Your task to perform on an android device: Go to Wikipedia Image 0: 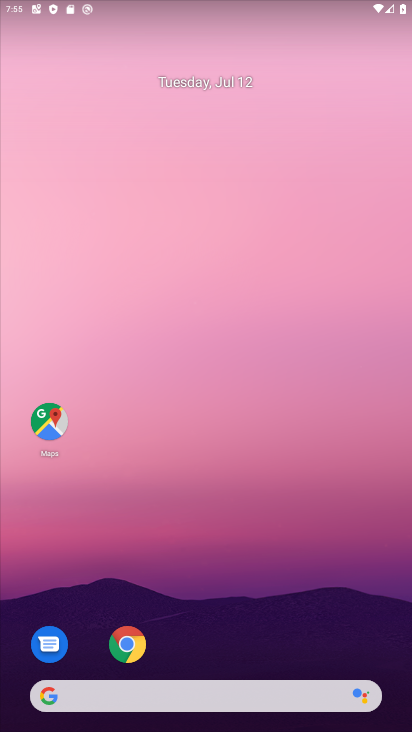
Step 0: drag from (224, 643) to (310, 121)
Your task to perform on an android device: Go to Wikipedia Image 1: 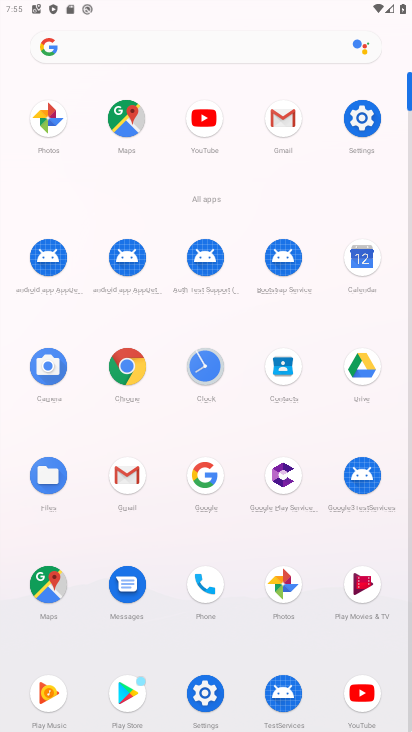
Step 1: click (128, 362)
Your task to perform on an android device: Go to Wikipedia Image 2: 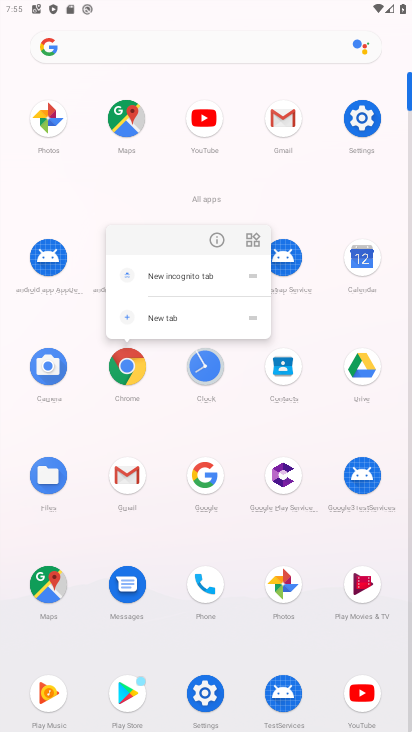
Step 2: click (213, 236)
Your task to perform on an android device: Go to Wikipedia Image 3: 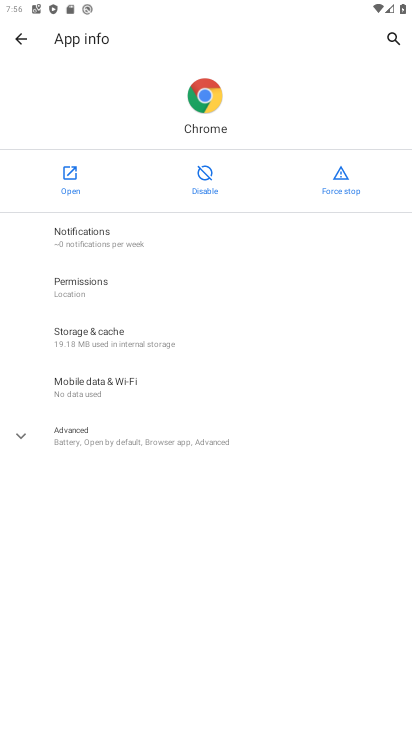
Step 3: click (73, 188)
Your task to perform on an android device: Go to Wikipedia Image 4: 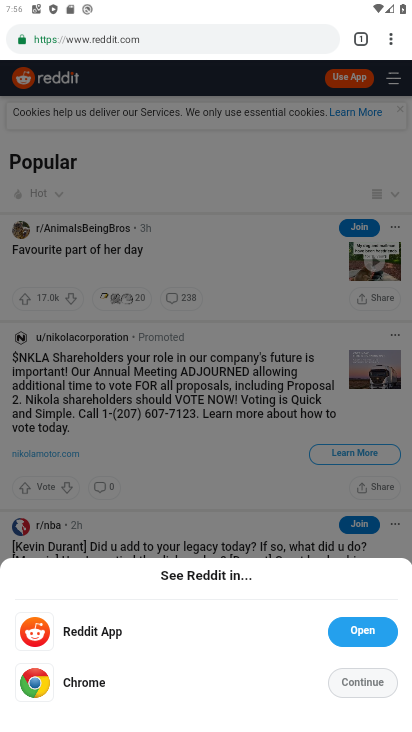
Step 4: click (119, 33)
Your task to perform on an android device: Go to Wikipedia Image 5: 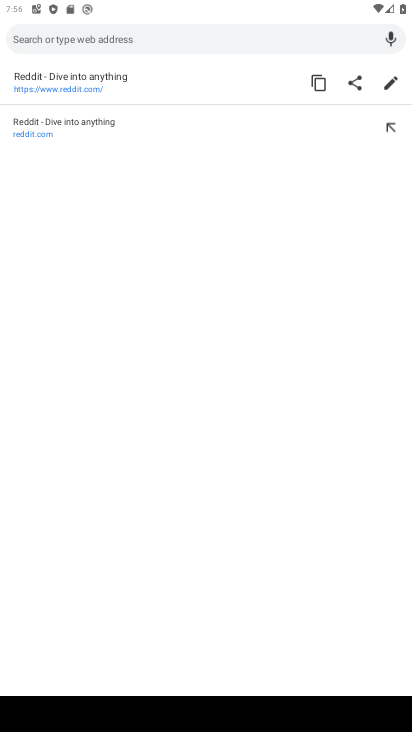
Step 5: type "wikipedia"
Your task to perform on an android device: Go to Wikipedia Image 6: 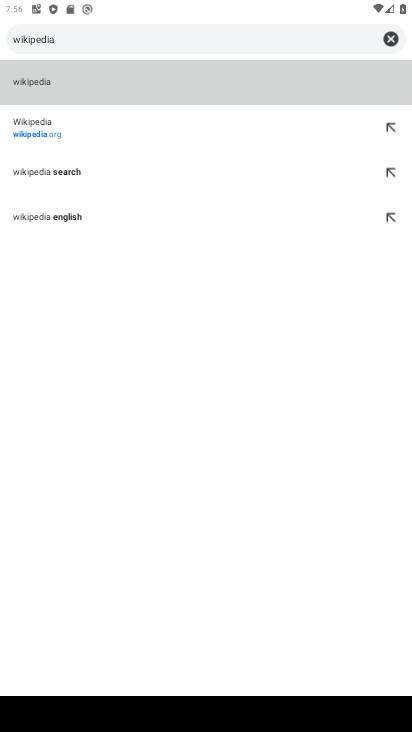
Step 6: click (35, 132)
Your task to perform on an android device: Go to Wikipedia Image 7: 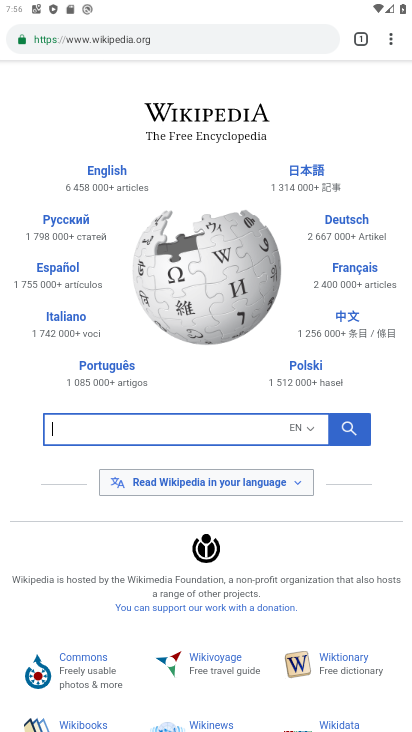
Step 7: task complete